Your task to perform on an android device: find snoozed emails in the gmail app Image 0: 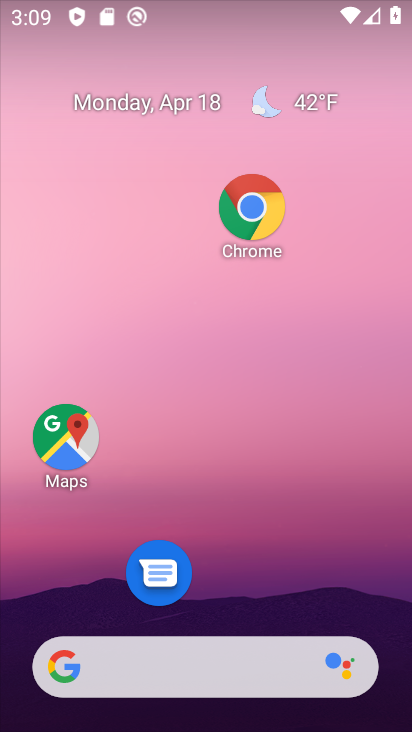
Step 0: drag from (216, 591) to (199, 77)
Your task to perform on an android device: find snoozed emails in the gmail app Image 1: 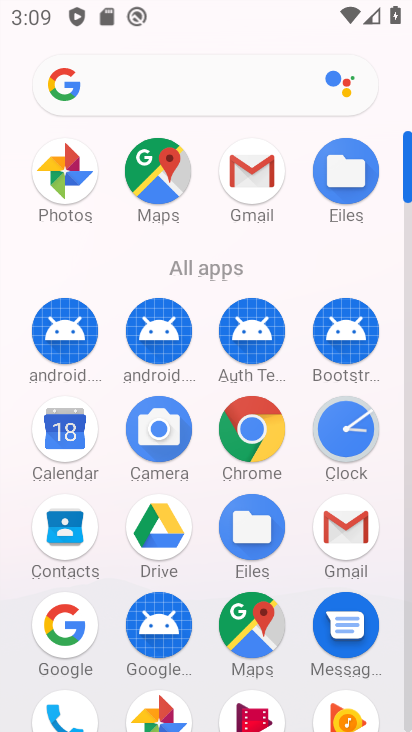
Step 1: click (352, 533)
Your task to perform on an android device: find snoozed emails in the gmail app Image 2: 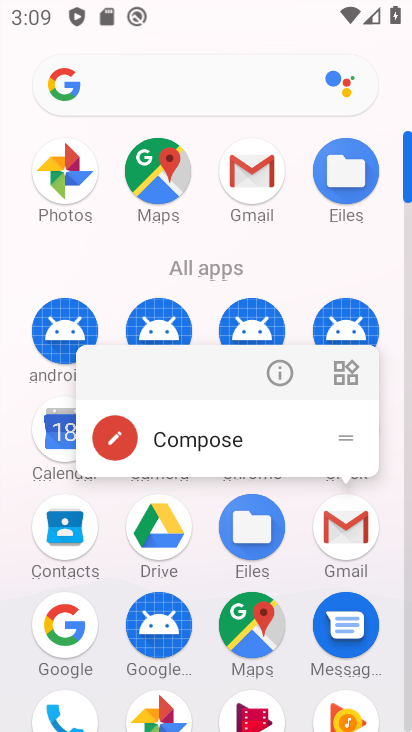
Step 2: click (275, 374)
Your task to perform on an android device: find snoozed emails in the gmail app Image 3: 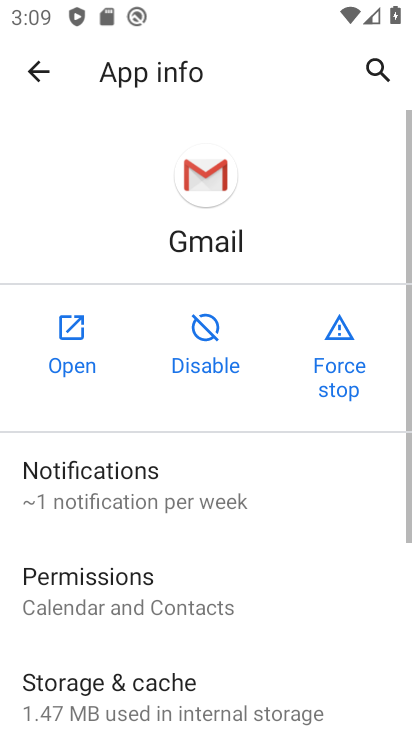
Step 3: click (63, 345)
Your task to perform on an android device: find snoozed emails in the gmail app Image 4: 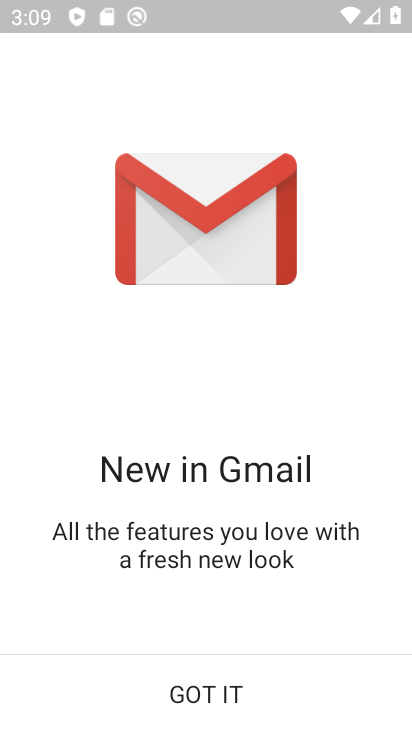
Step 4: click (175, 692)
Your task to perform on an android device: find snoozed emails in the gmail app Image 5: 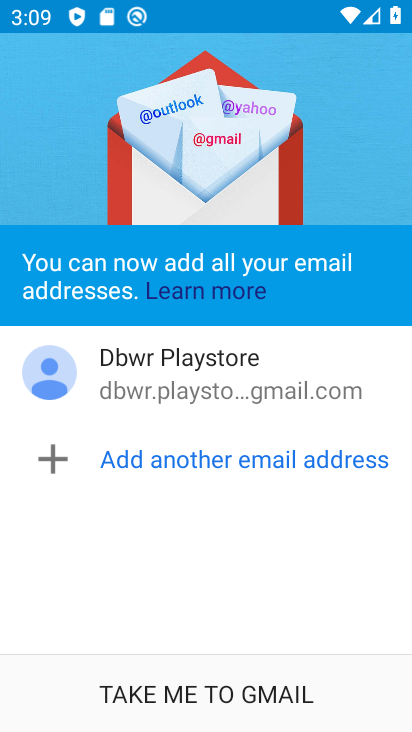
Step 5: click (209, 687)
Your task to perform on an android device: find snoozed emails in the gmail app Image 6: 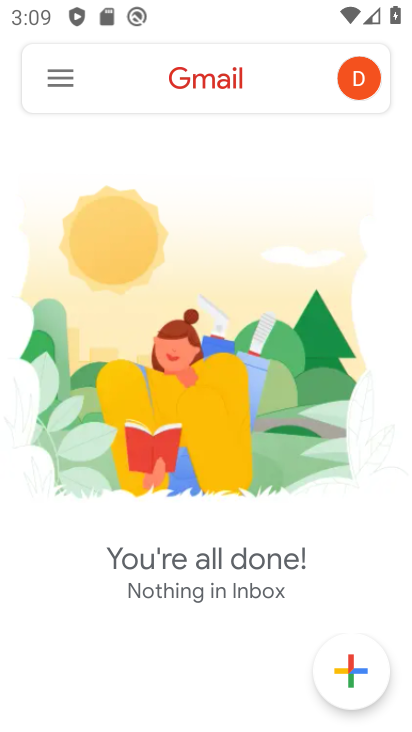
Step 6: click (275, 522)
Your task to perform on an android device: find snoozed emails in the gmail app Image 7: 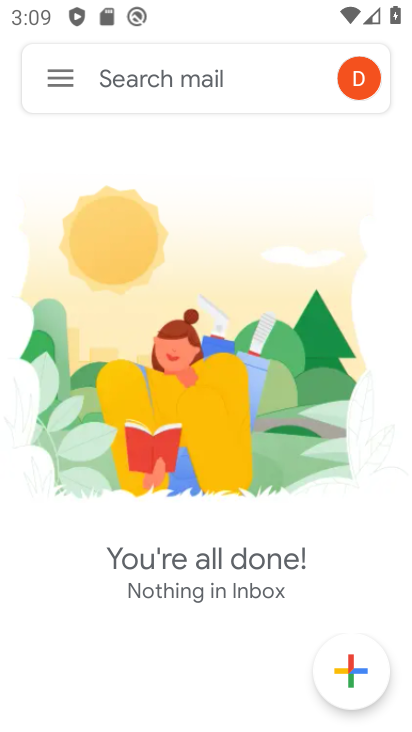
Step 7: click (63, 78)
Your task to perform on an android device: find snoozed emails in the gmail app Image 8: 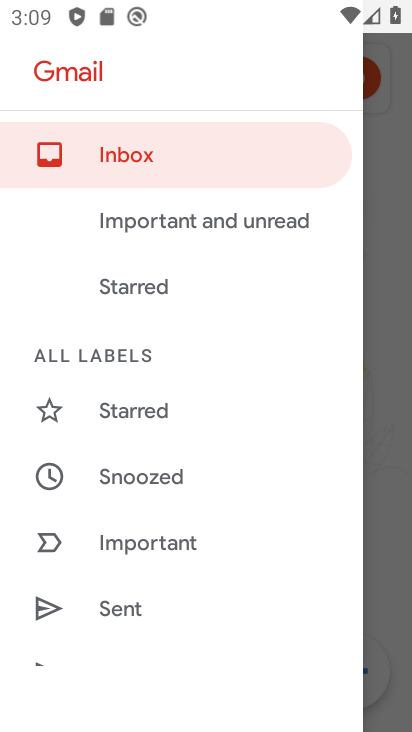
Step 8: click (175, 485)
Your task to perform on an android device: find snoozed emails in the gmail app Image 9: 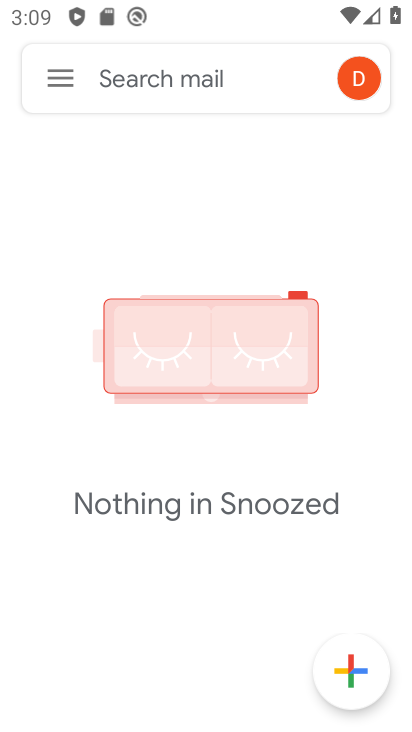
Step 9: task complete